Your task to perform on an android device: Is it going to rain this weekend? Image 0: 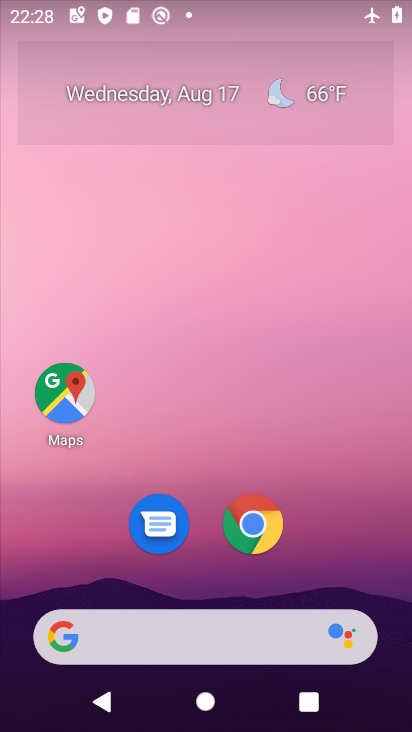
Step 0: click (316, 88)
Your task to perform on an android device: Is it going to rain this weekend? Image 1: 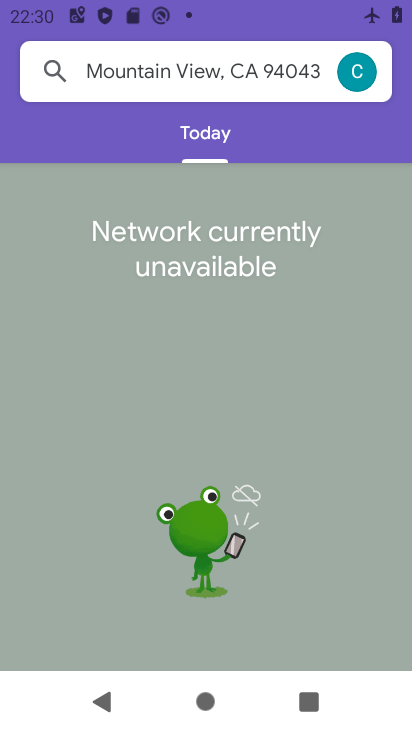
Step 1: task complete